Your task to perform on an android device: move an email to a new category in the gmail app Image 0: 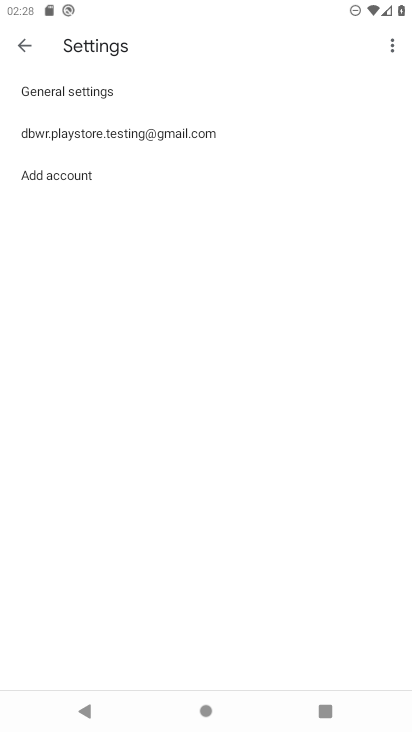
Step 0: press home button
Your task to perform on an android device: move an email to a new category in the gmail app Image 1: 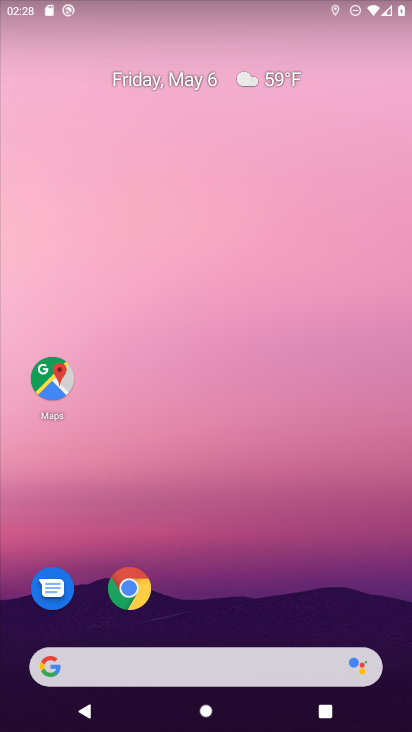
Step 1: drag from (243, 605) to (70, 0)
Your task to perform on an android device: move an email to a new category in the gmail app Image 2: 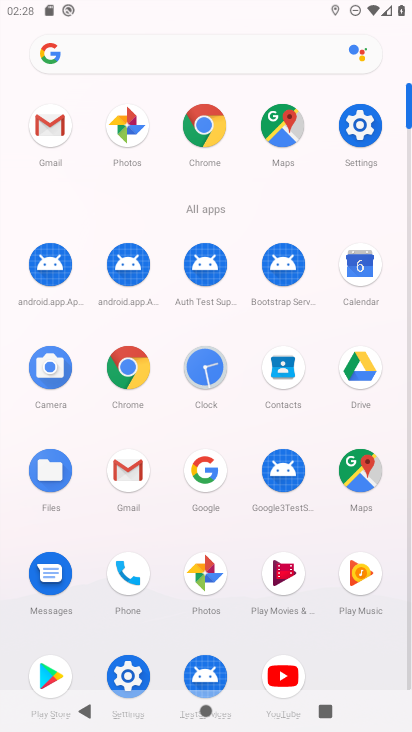
Step 2: click (117, 480)
Your task to perform on an android device: move an email to a new category in the gmail app Image 3: 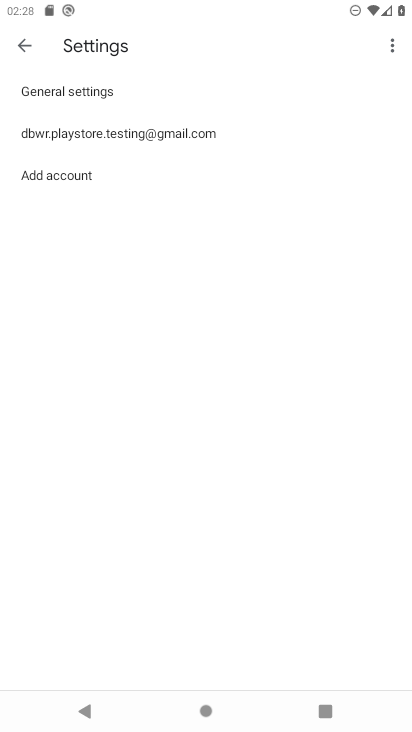
Step 3: click (31, 47)
Your task to perform on an android device: move an email to a new category in the gmail app Image 4: 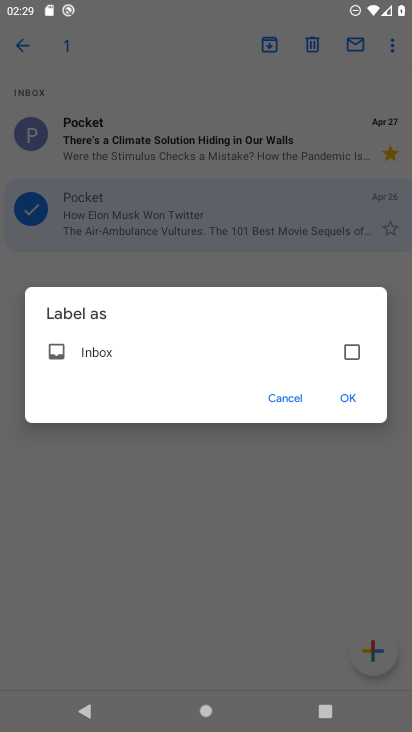
Step 4: click (348, 340)
Your task to perform on an android device: move an email to a new category in the gmail app Image 5: 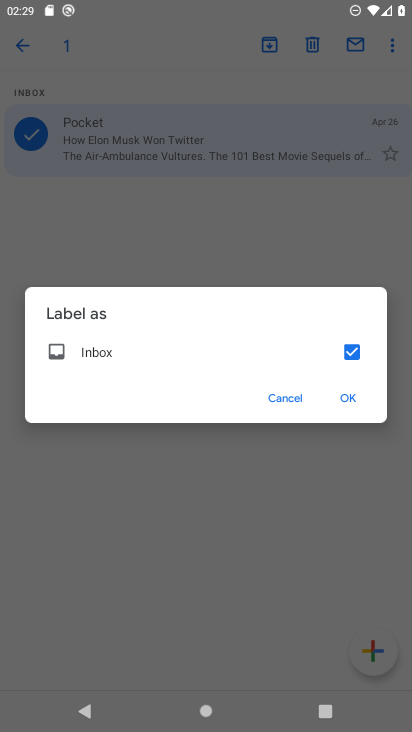
Step 5: click (353, 399)
Your task to perform on an android device: move an email to a new category in the gmail app Image 6: 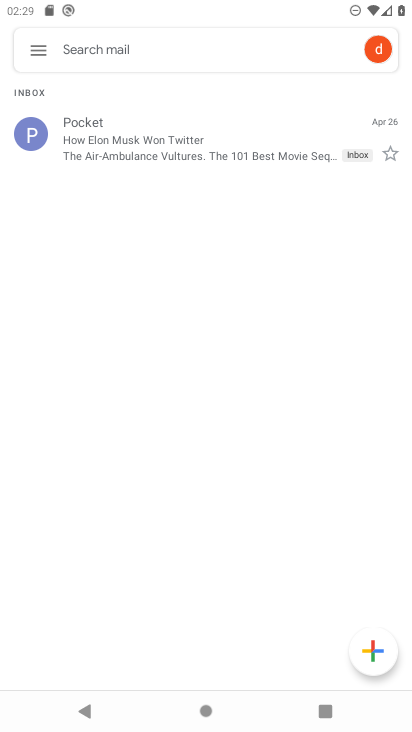
Step 6: task complete